Your task to perform on an android device: Show me productivity apps on the Play Store Image 0: 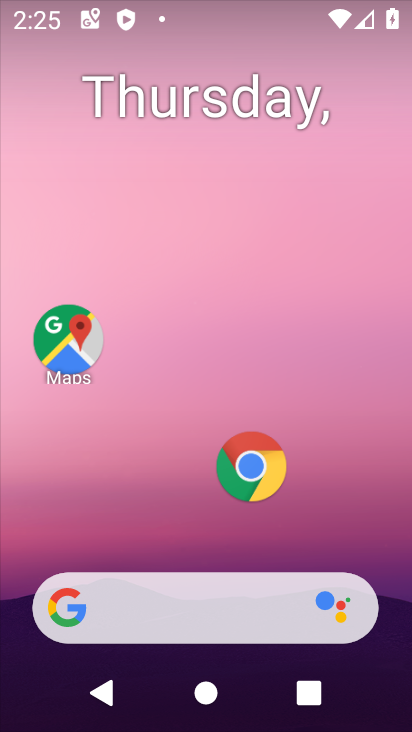
Step 0: drag from (184, 551) to (211, 170)
Your task to perform on an android device: Show me productivity apps on the Play Store Image 1: 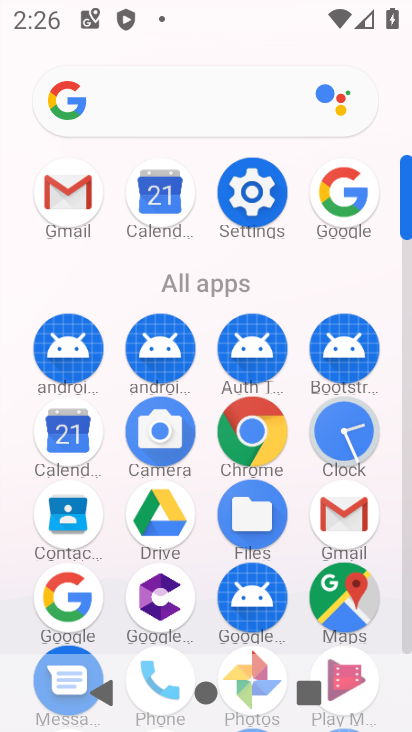
Step 1: drag from (198, 502) to (202, 195)
Your task to perform on an android device: Show me productivity apps on the Play Store Image 2: 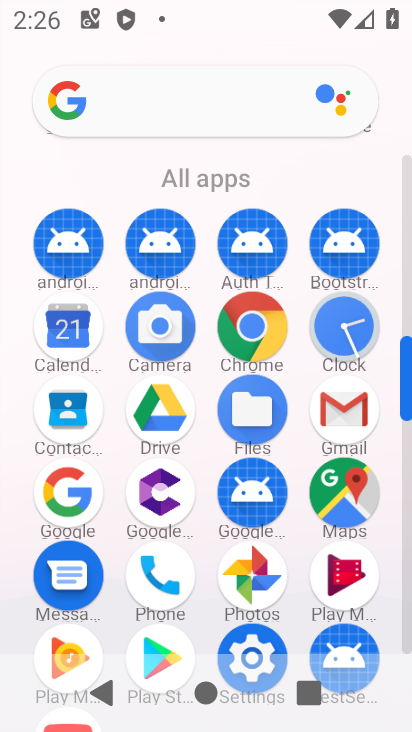
Step 2: click (161, 647)
Your task to perform on an android device: Show me productivity apps on the Play Store Image 3: 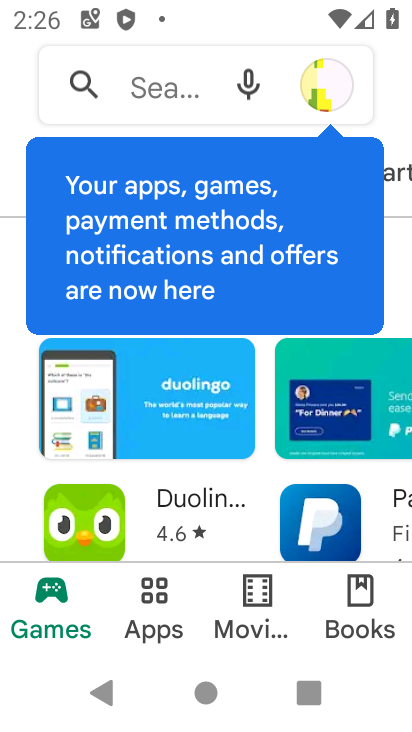
Step 3: click (158, 589)
Your task to perform on an android device: Show me productivity apps on the Play Store Image 4: 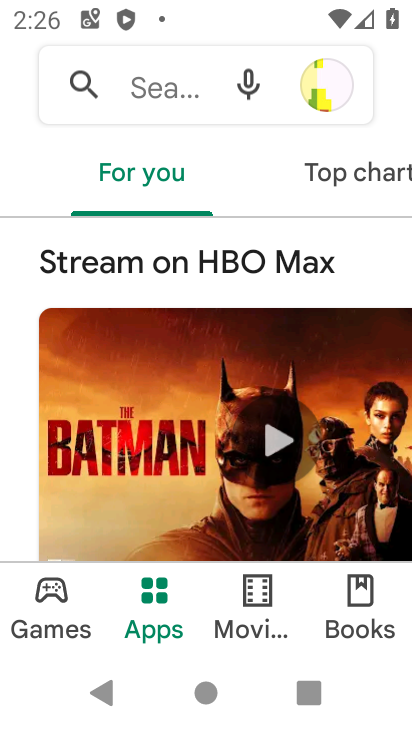
Step 4: drag from (342, 175) to (117, 174)
Your task to perform on an android device: Show me productivity apps on the Play Store Image 5: 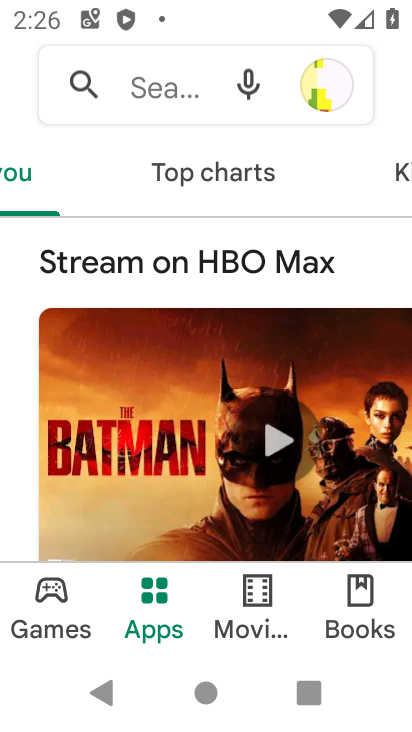
Step 5: drag from (300, 174) to (59, 177)
Your task to perform on an android device: Show me productivity apps on the Play Store Image 6: 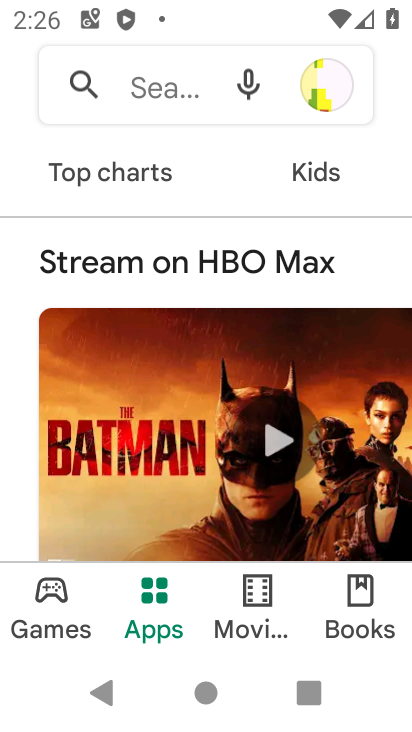
Step 6: drag from (306, 177) to (108, 198)
Your task to perform on an android device: Show me productivity apps on the Play Store Image 7: 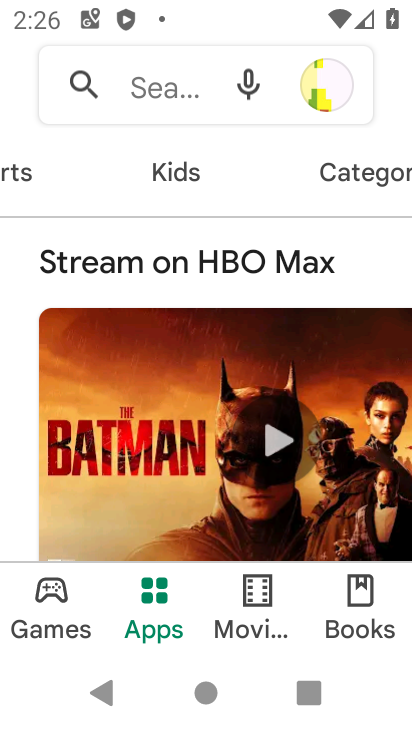
Step 7: click (346, 178)
Your task to perform on an android device: Show me productivity apps on the Play Store Image 8: 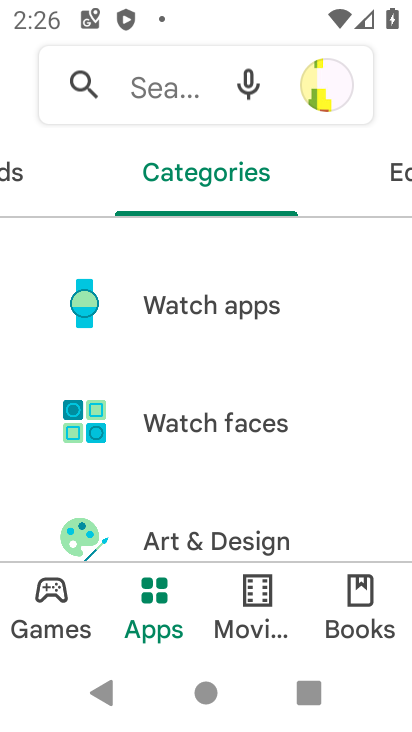
Step 8: drag from (262, 498) to (255, 255)
Your task to perform on an android device: Show me productivity apps on the Play Store Image 9: 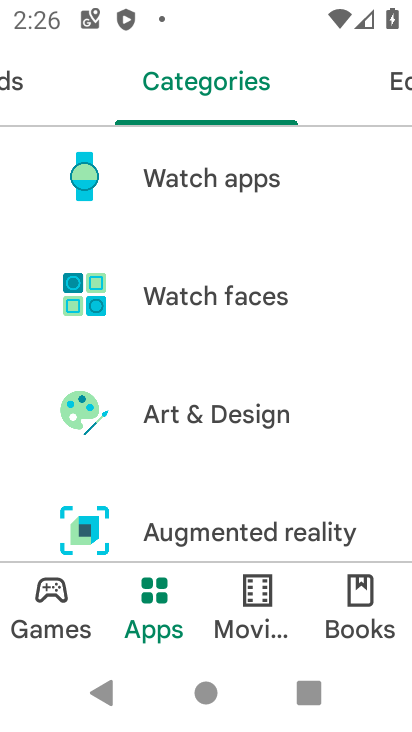
Step 9: drag from (276, 485) to (266, 236)
Your task to perform on an android device: Show me productivity apps on the Play Store Image 10: 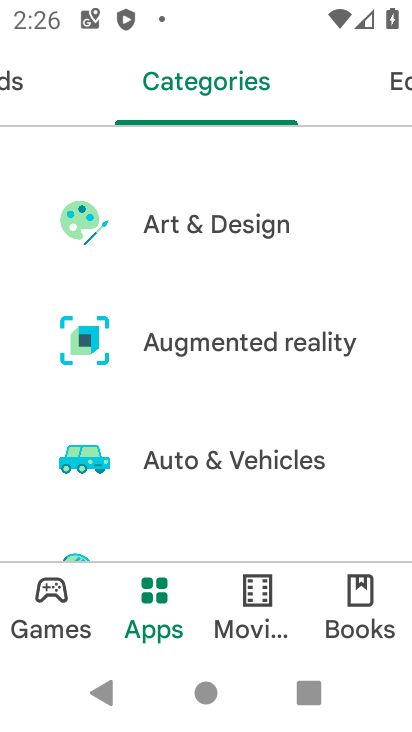
Step 10: drag from (275, 484) to (294, 190)
Your task to perform on an android device: Show me productivity apps on the Play Store Image 11: 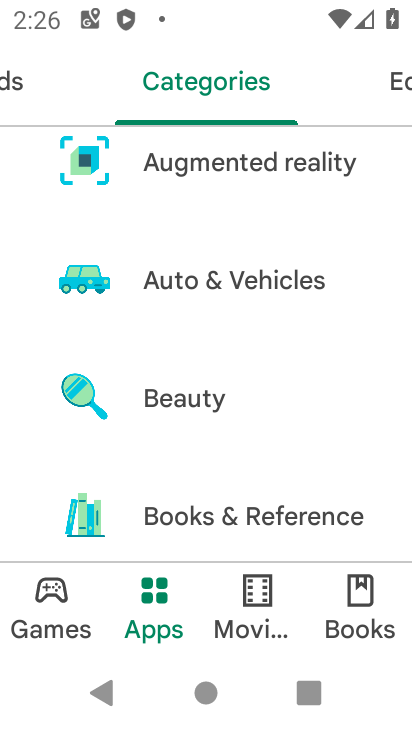
Step 11: drag from (270, 499) to (299, 213)
Your task to perform on an android device: Show me productivity apps on the Play Store Image 12: 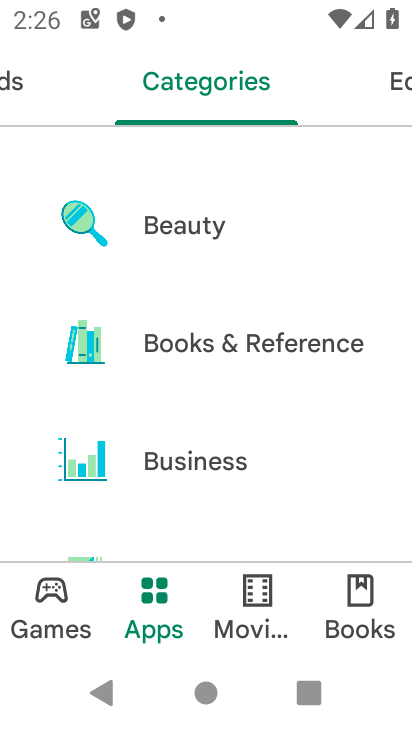
Step 12: drag from (253, 436) to (255, 133)
Your task to perform on an android device: Show me productivity apps on the Play Store Image 13: 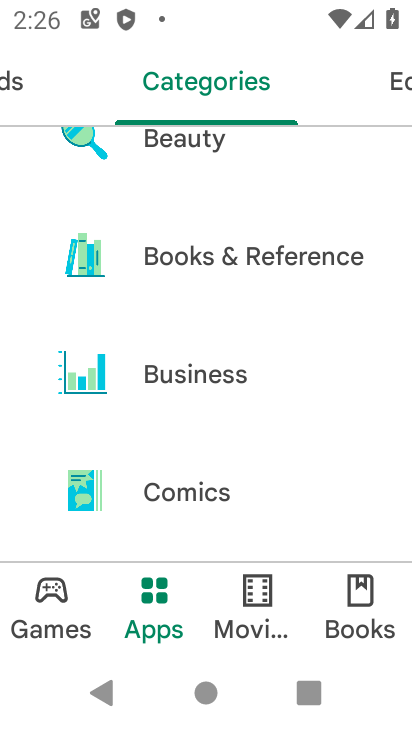
Step 13: drag from (257, 442) to (265, 174)
Your task to perform on an android device: Show me productivity apps on the Play Store Image 14: 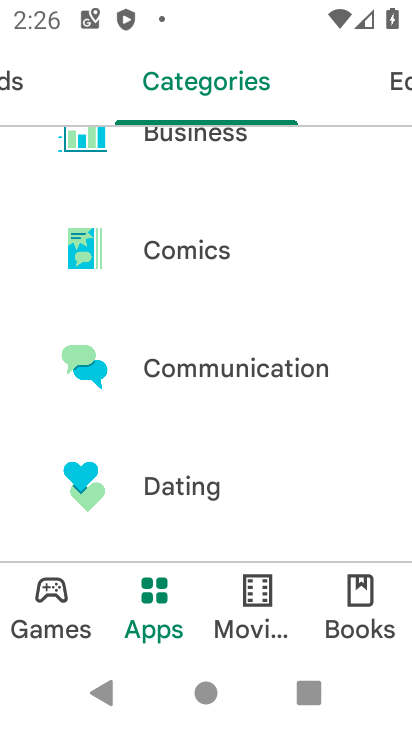
Step 14: drag from (283, 472) to (301, 183)
Your task to perform on an android device: Show me productivity apps on the Play Store Image 15: 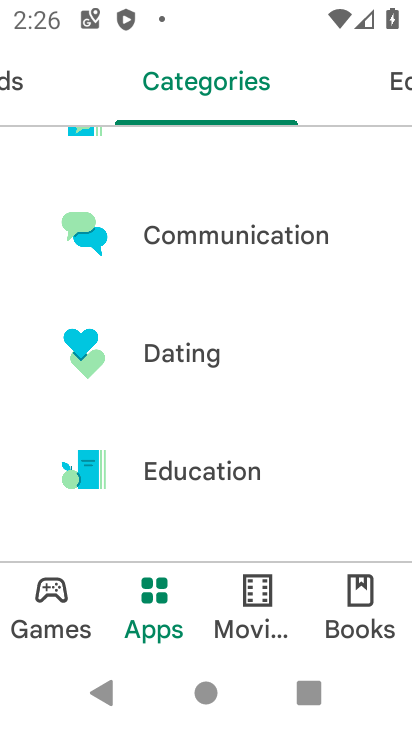
Step 15: drag from (270, 227) to (321, 141)
Your task to perform on an android device: Show me productivity apps on the Play Store Image 16: 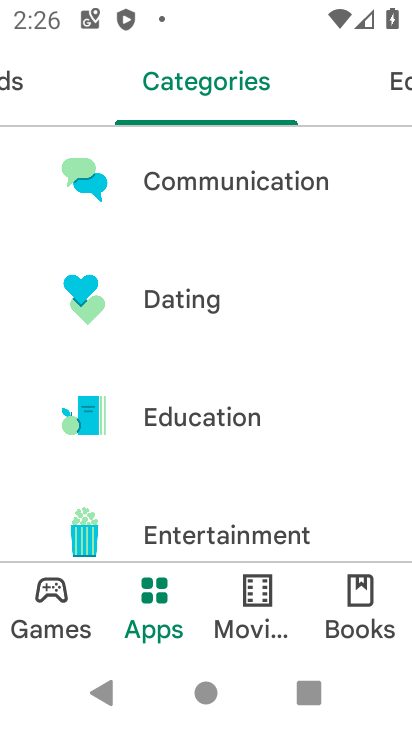
Step 16: drag from (288, 489) to (305, 261)
Your task to perform on an android device: Show me productivity apps on the Play Store Image 17: 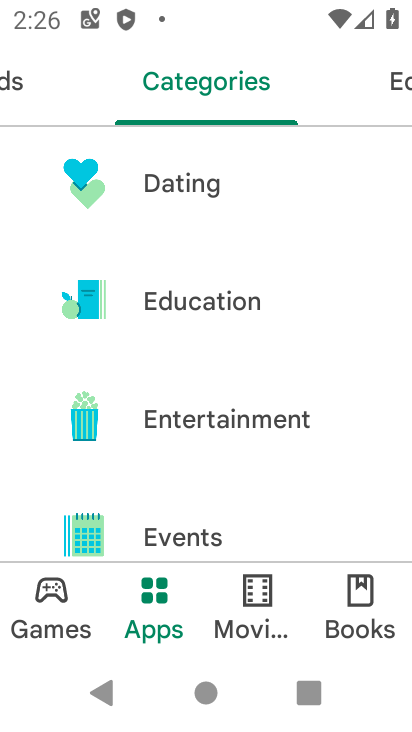
Step 17: drag from (252, 503) to (252, 231)
Your task to perform on an android device: Show me productivity apps on the Play Store Image 18: 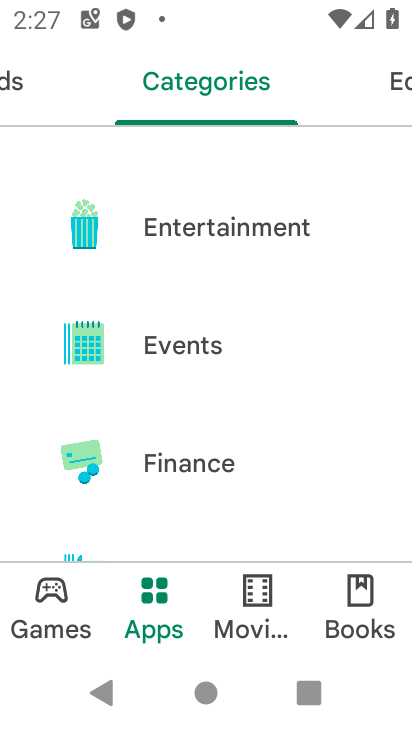
Step 18: drag from (252, 464) to (252, 99)
Your task to perform on an android device: Show me productivity apps on the Play Store Image 19: 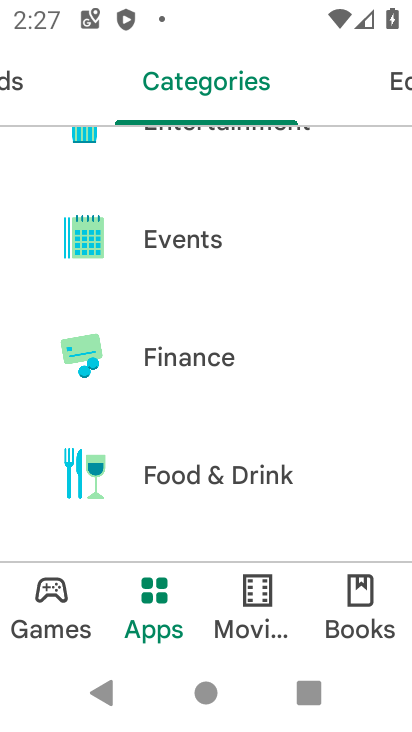
Step 19: drag from (268, 464) to (280, 167)
Your task to perform on an android device: Show me productivity apps on the Play Store Image 20: 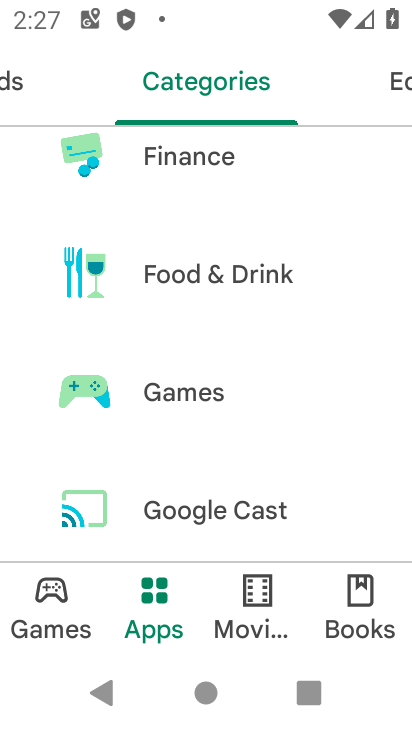
Step 20: drag from (296, 474) to (306, 204)
Your task to perform on an android device: Show me productivity apps on the Play Store Image 21: 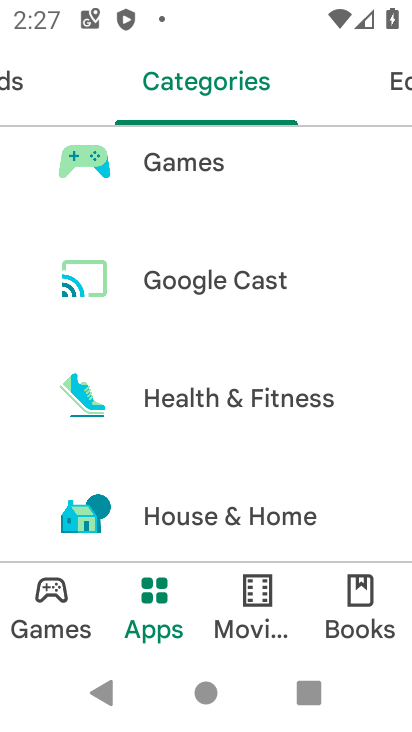
Step 21: drag from (306, 474) to (308, 211)
Your task to perform on an android device: Show me productivity apps on the Play Store Image 22: 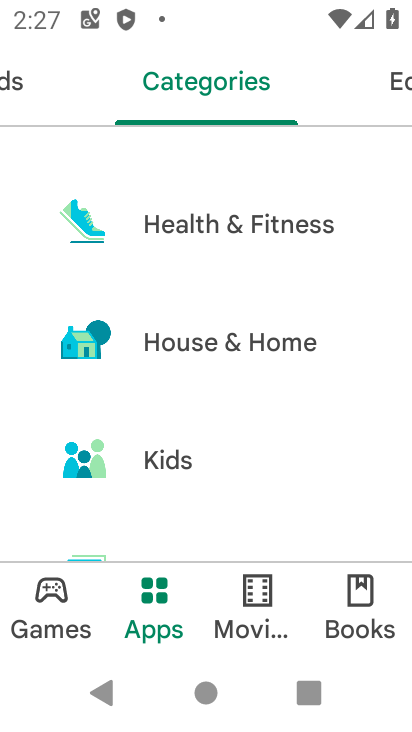
Step 22: drag from (262, 513) to (271, 226)
Your task to perform on an android device: Show me productivity apps on the Play Store Image 23: 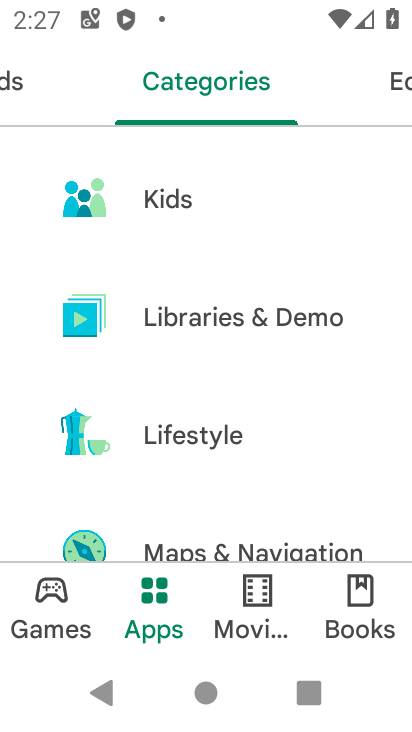
Step 23: drag from (257, 472) to (266, 223)
Your task to perform on an android device: Show me productivity apps on the Play Store Image 24: 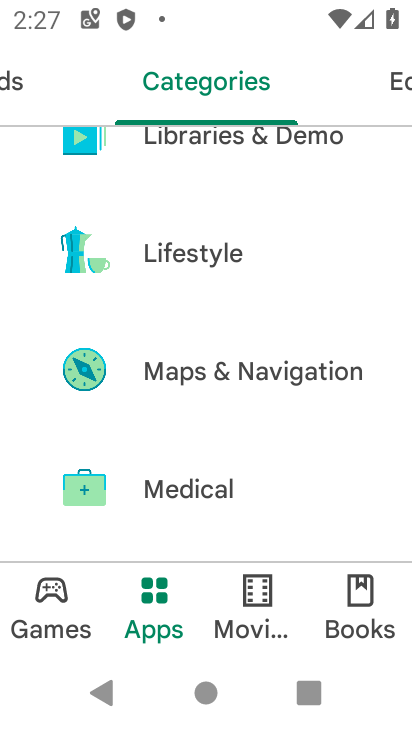
Step 24: drag from (260, 494) to (260, 192)
Your task to perform on an android device: Show me productivity apps on the Play Store Image 25: 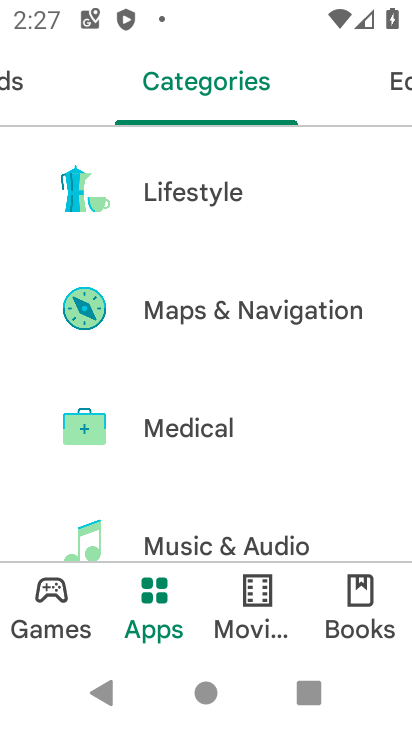
Step 25: drag from (267, 474) to (276, 193)
Your task to perform on an android device: Show me productivity apps on the Play Store Image 26: 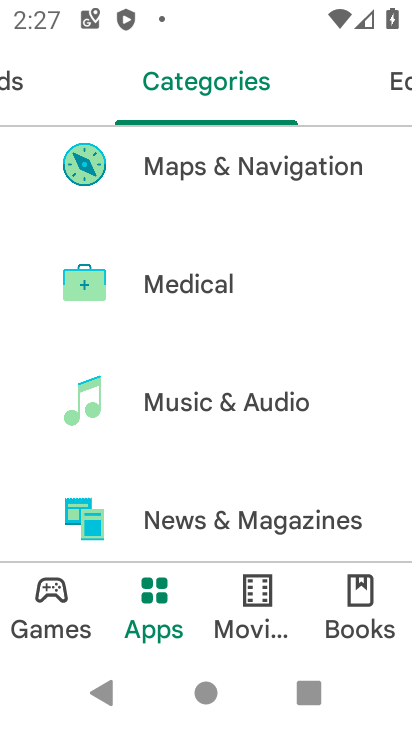
Step 26: drag from (261, 466) to (277, 201)
Your task to perform on an android device: Show me productivity apps on the Play Store Image 27: 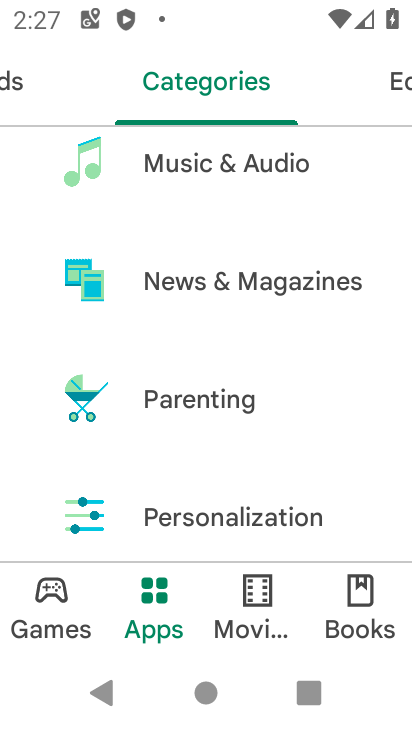
Step 27: drag from (278, 474) to (289, 214)
Your task to perform on an android device: Show me productivity apps on the Play Store Image 28: 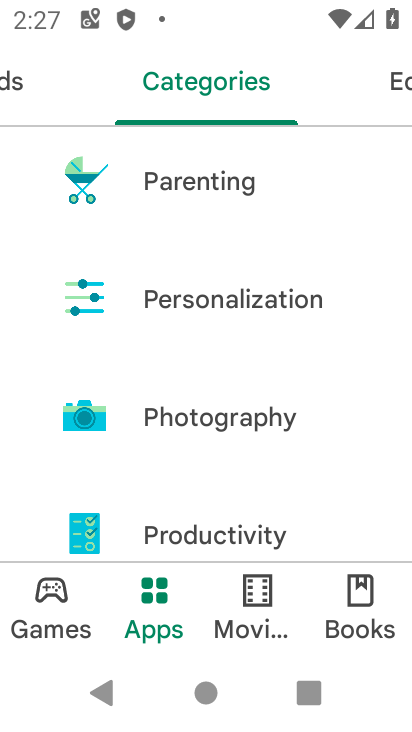
Step 28: click (235, 522)
Your task to perform on an android device: Show me productivity apps on the Play Store Image 29: 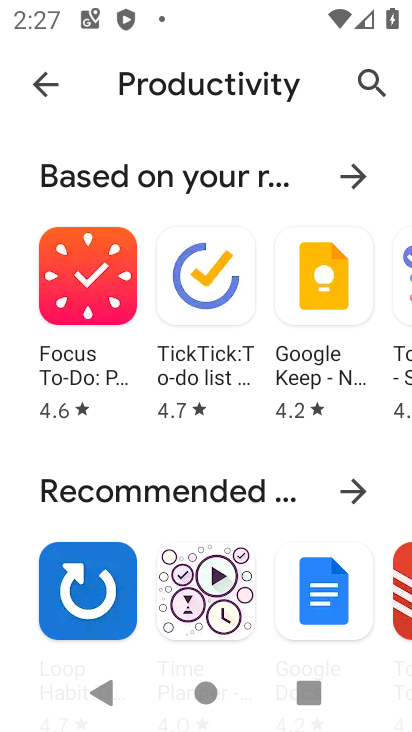
Step 29: task complete